Your task to perform on an android device: visit the assistant section in the google photos Image 0: 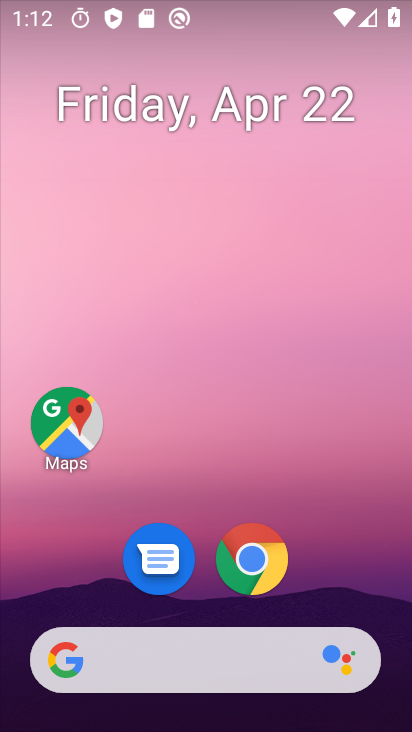
Step 0: drag from (351, 576) to (361, 187)
Your task to perform on an android device: visit the assistant section in the google photos Image 1: 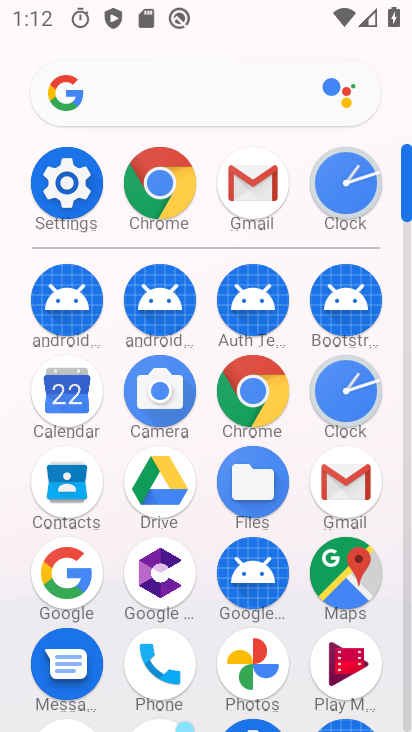
Step 1: drag from (397, 580) to (398, 348)
Your task to perform on an android device: visit the assistant section in the google photos Image 2: 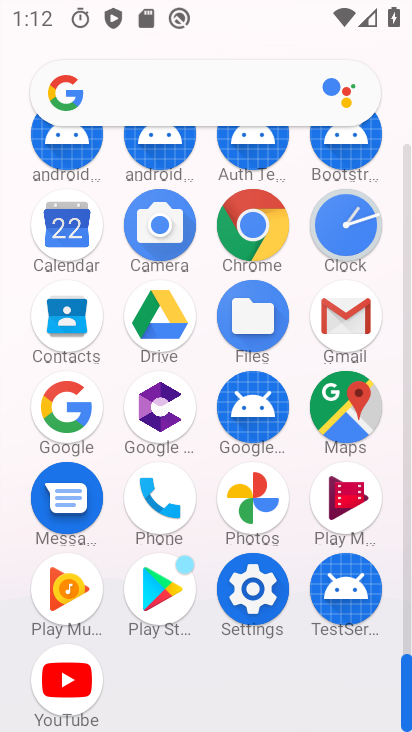
Step 2: click (246, 495)
Your task to perform on an android device: visit the assistant section in the google photos Image 3: 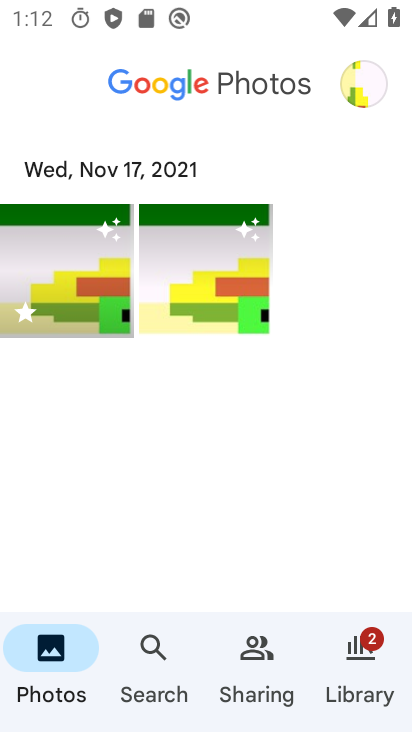
Step 3: click (369, 647)
Your task to perform on an android device: visit the assistant section in the google photos Image 4: 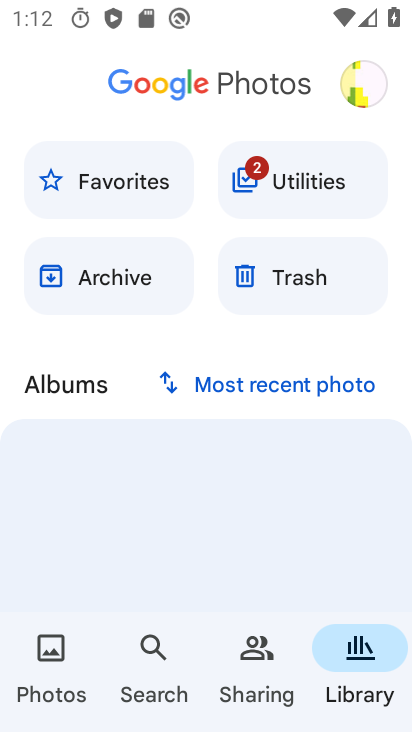
Step 4: task complete